Your task to perform on an android device: toggle sleep mode Image 0: 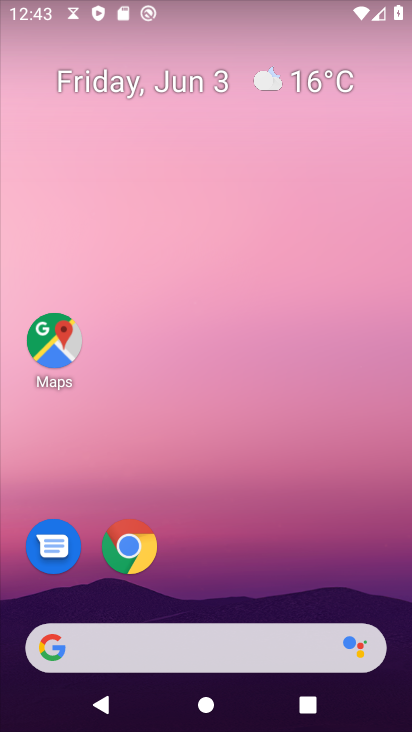
Step 0: drag from (194, 621) to (294, 111)
Your task to perform on an android device: toggle sleep mode Image 1: 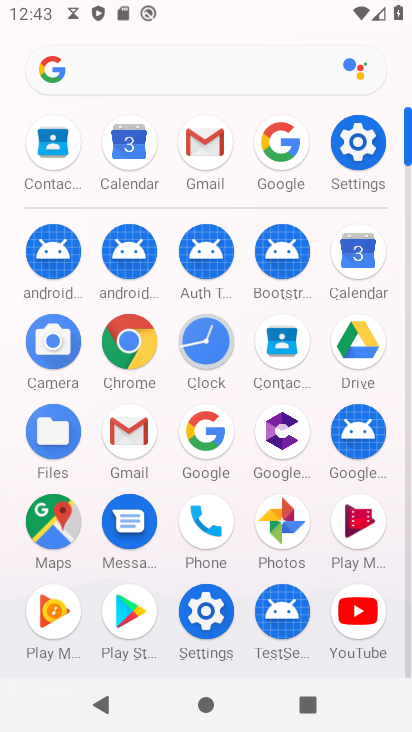
Step 1: click (356, 138)
Your task to perform on an android device: toggle sleep mode Image 2: 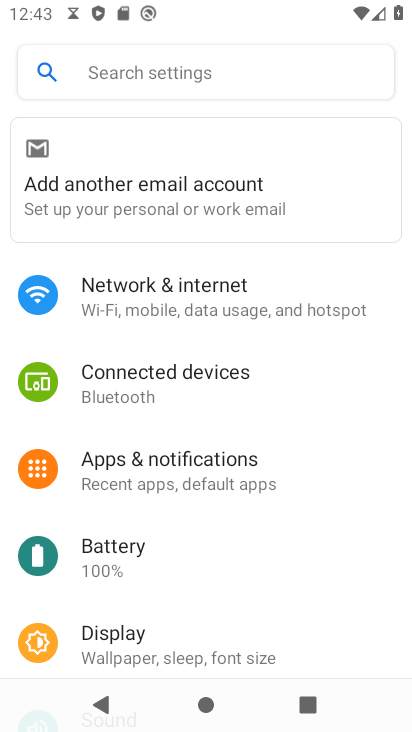
Step 2: click (122, 67)
Your task to perform on an android device: toggle sleep mode Image 3: 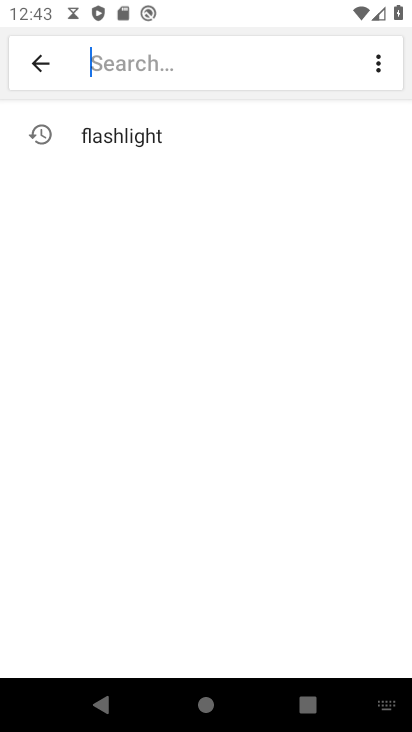
Step 3: type "sleep mode"
Your task to perform on an android device: toggle sleep mode Image 4: 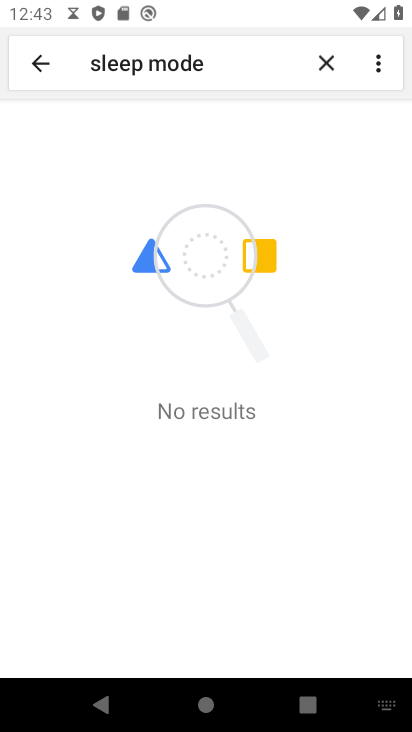
Step 4: task complete